Your task to perform on an android device: Go to Wikipedia Image 0: 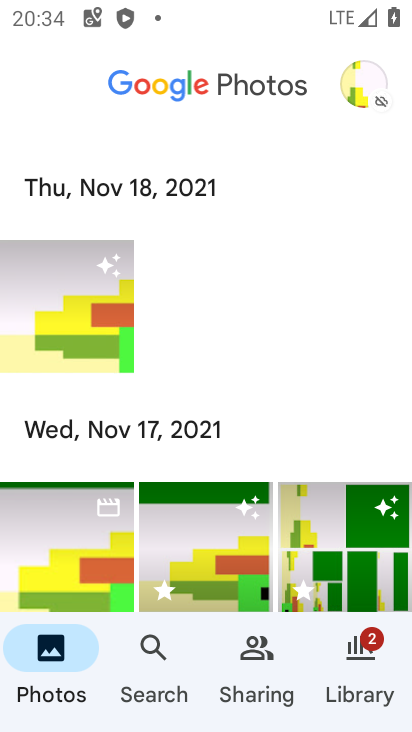
Step 0: press home button
Your task to perform on an android device: Go to Wikipedia Image 1: 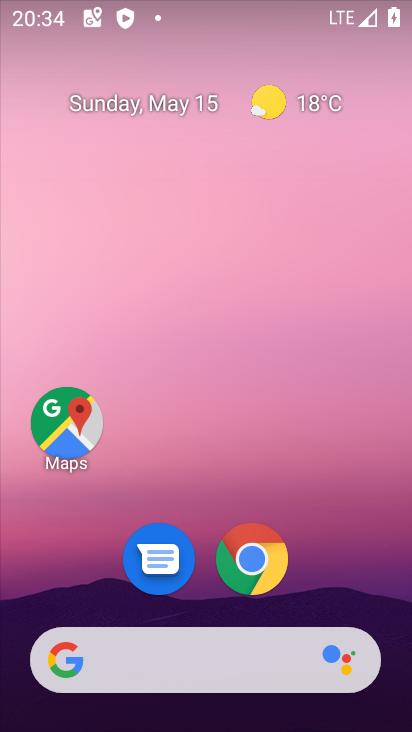
Step 1: click (249, 558)
Your task to perform on an android device: Go to Wikipedia Image 2: 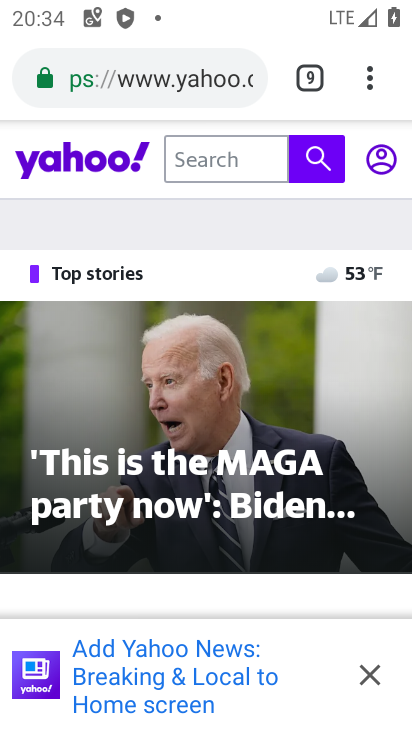
Step 2: click (371, 76)
Your task to perform on an android device: Go to Wikipedia Image 3: 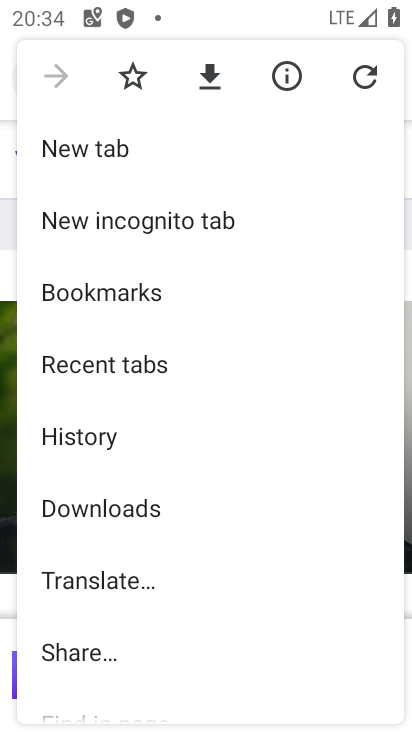
Step 3: click (99, 154)
Your task to perform on an android device: Go to Wikipedia Image 4: 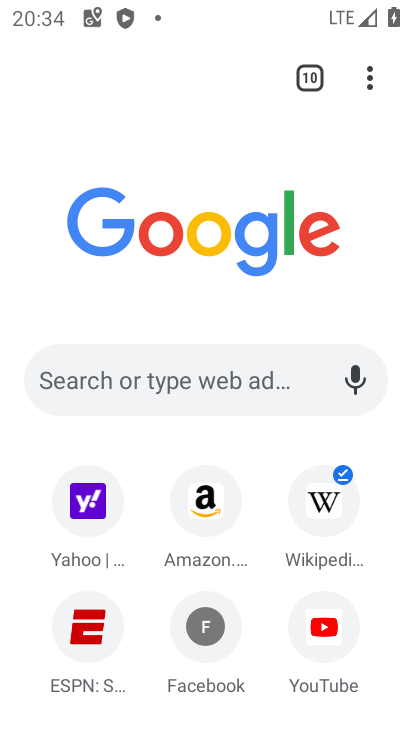
Step 4: drag from (250, 584) to (220, 417)
Your task to perform on an android device: Go to Wikipedia Image 5: 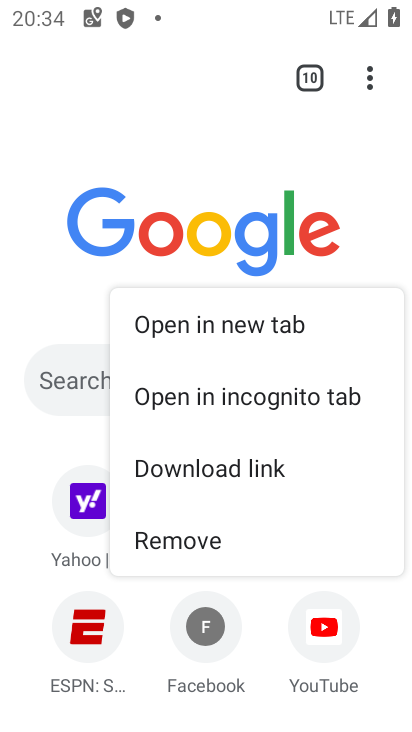
Step 5: click (54, 270)
Your task to perform on an android device: Go to Wikipedia Image 6: 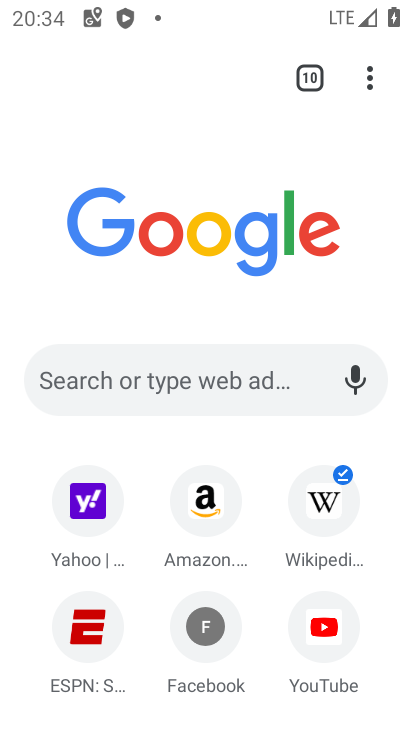
Step 6: drag from (222, 277) to (199, 82)
Your task to perform on an android device: Go to Wikipedia Image 7: 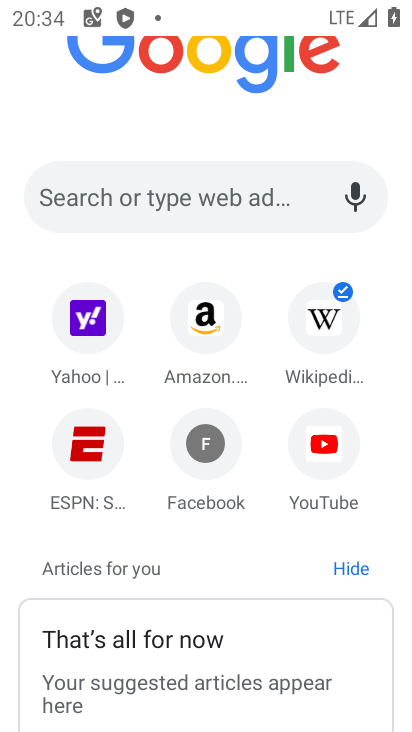
Step 7: click (319, 318)
Your task to perform on an android device: Go to Wikipedia Image 8: 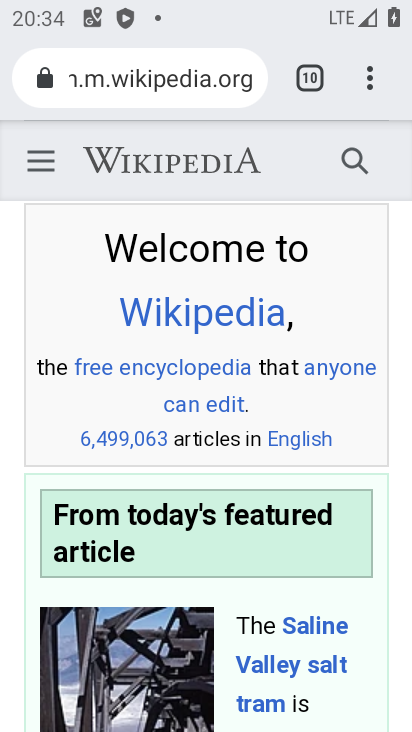
Step 8: task complete